Your task to perform on an android device: Go to location settings Image 0: 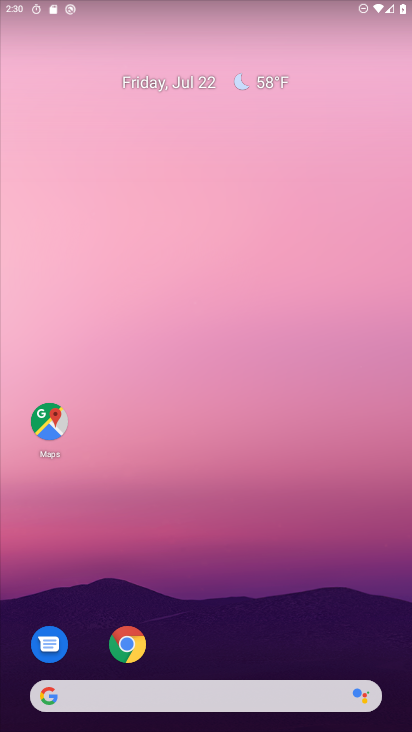
Step 0: drag from (227, 615) to (234, 197)
Your task to perform on an android device: Go to location settings Image 1: 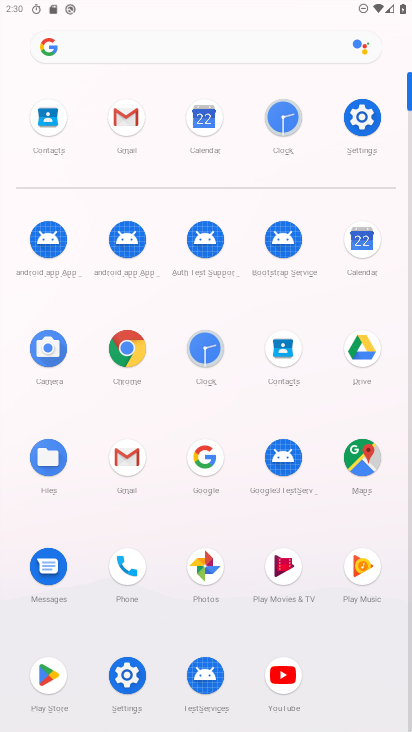
Step 1: click (340, 128)
Your task to perform on an android device: Go to location settings Image 2: 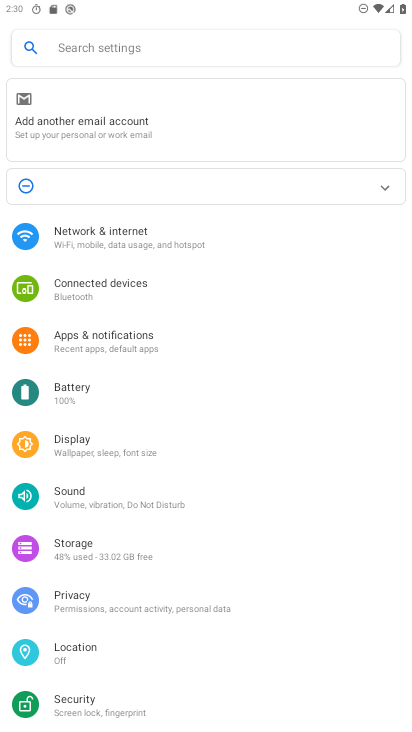
Step 2: drag from (170, 673) to (156, 528)
Your task to perform on an android device: Go to location settings Image 3: 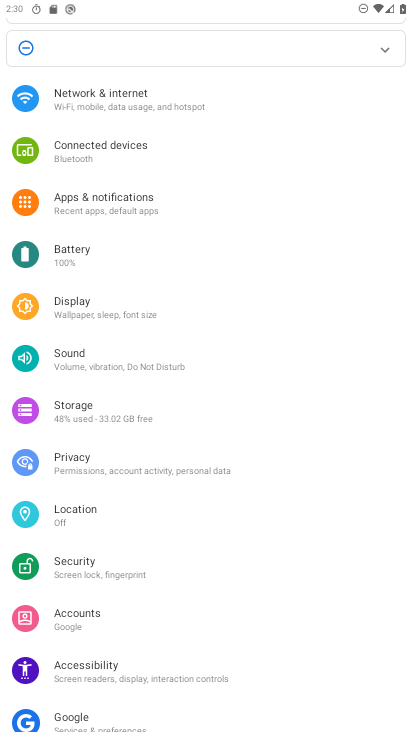
Step 3: click (113, 509)
Your task to perform on an android device: Go to location settings Image 4: 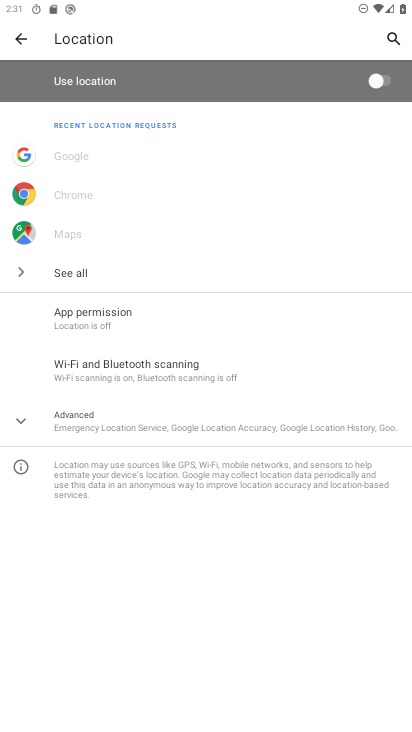
Step 4: task complete